Your task to perform on an android device: Go to network settings Image 0: 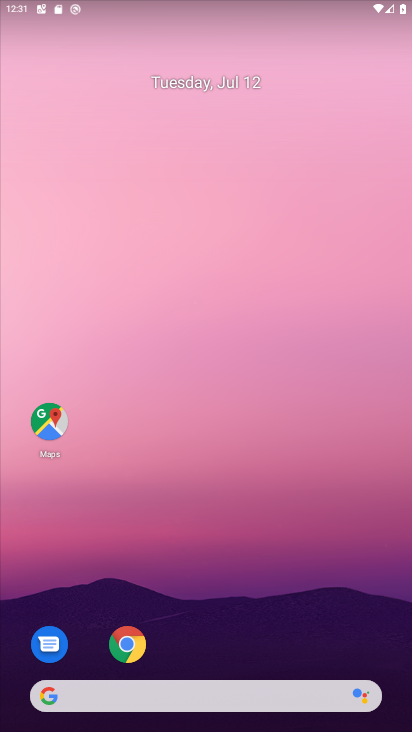
Step 0: drag from (155, 662) to (253, 80)
Your task to perform on an android device: Go to network settings Image 1: 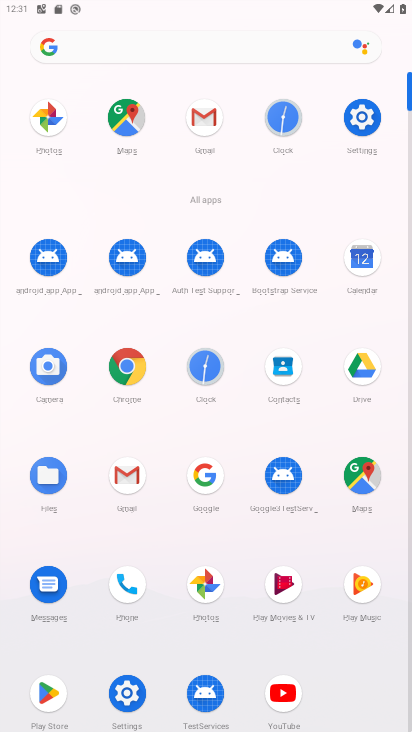
Step 1: click (134, 684)
Your task to perform on an android device: Go to network settings Image 2: 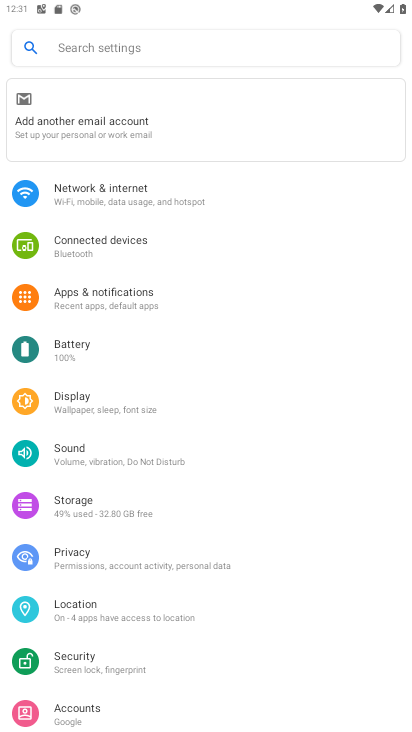
Step 2: click (153, 197)
Your task to perform on an android device: Go to network settings Image 3: 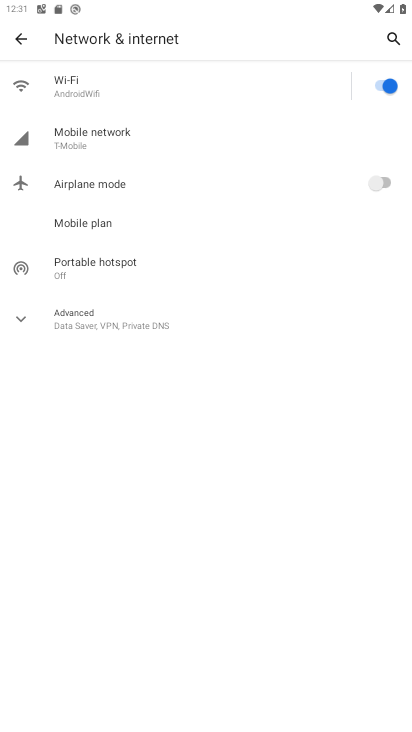
Step 3: click (128, 144)
Your task to perform on an android device: Go to network settings Image 4: 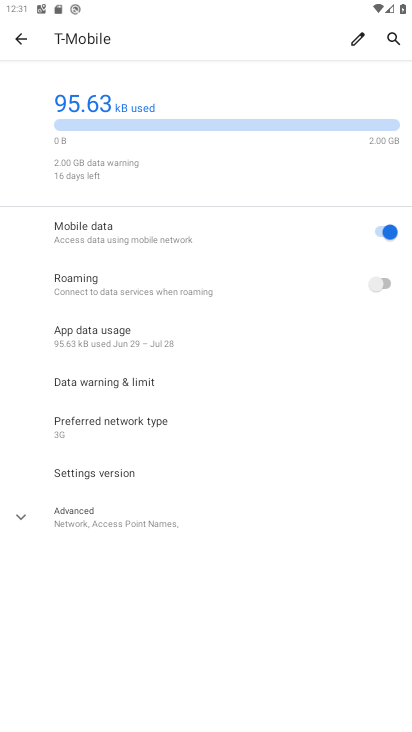
Step 4: task complete